Your task to perform on an android device: remove spam from my inbox in the gmail app Image 0: 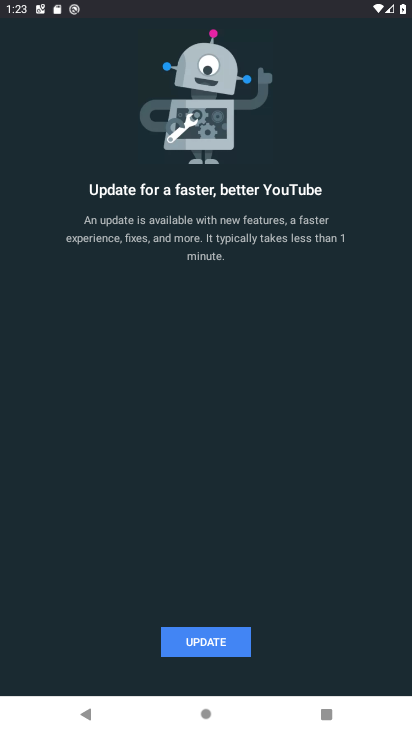
Step 0: press home button
Your task to perform on an android device: remove spam from my inbox in the gmail app Image 1: 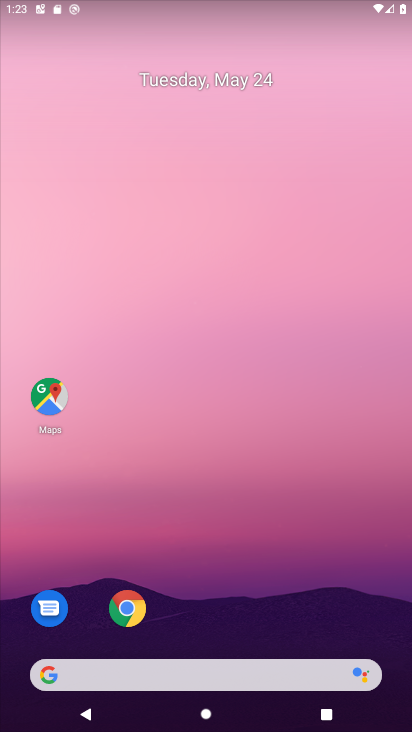
Step 1: drag from (268, 582) to (154, 21)
Your task to perform on an android device: remove spam from my inbox in the gmail app Image 2: 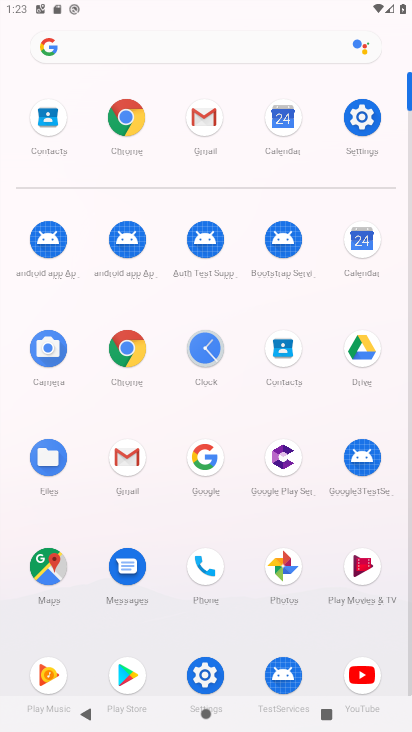
Step 2: click (194, 127)
Your task to perform on an android device: remove spam from my inbox in the gmail app Image 3: 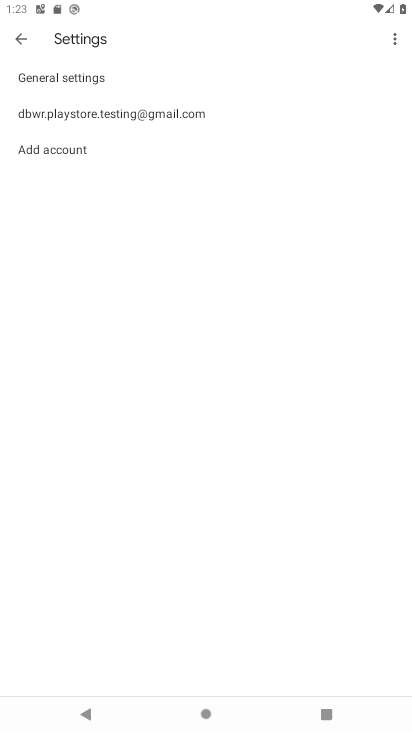
Step 3: click (19, 36)
Your task to perform on an android device: remove spam from my inbox in the gmail app Image 4: 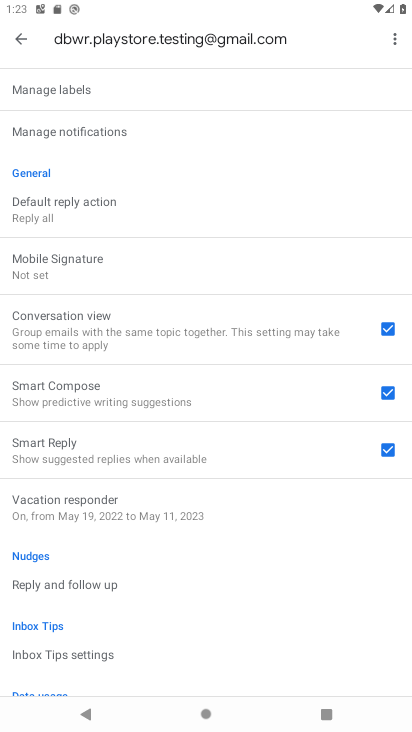
Step 4: click (25, 46)
Your task to perform on an android device: remove spam from my inbox in the gmail app Image 5: 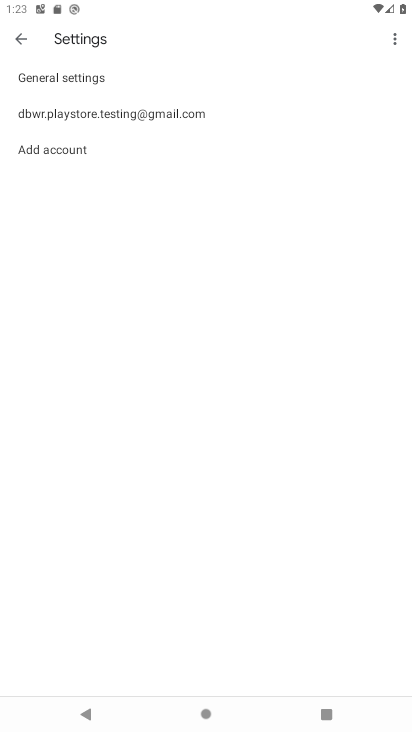
Step 5: click (19, 37)
Your task to perform on an android device: remove spam from my inbox in the gmail app Image 6: 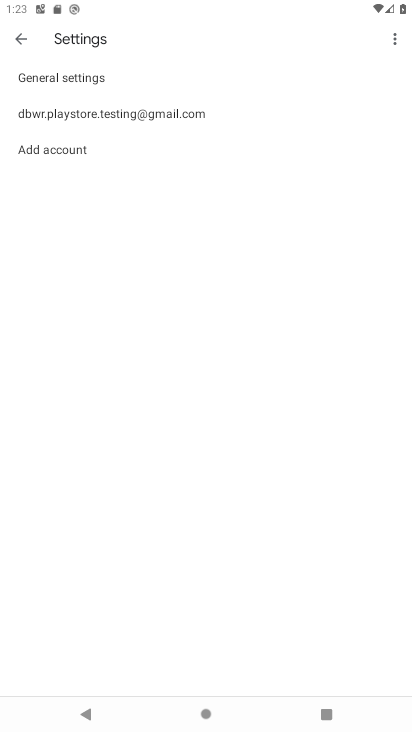
Step 6: click (22, 40)
Your task to perform on an android device: remove spam from my inbox in the gmail app Image 7: 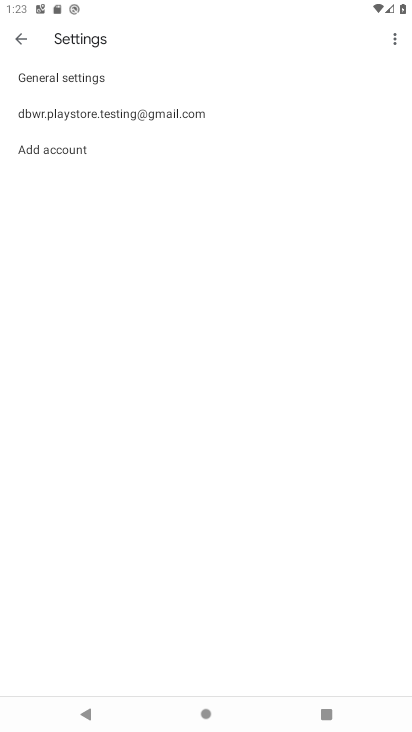
Step 7: click (22, 40)
Your task to perform on an android device: remove spam from my inbox in the gmail app Image 8: 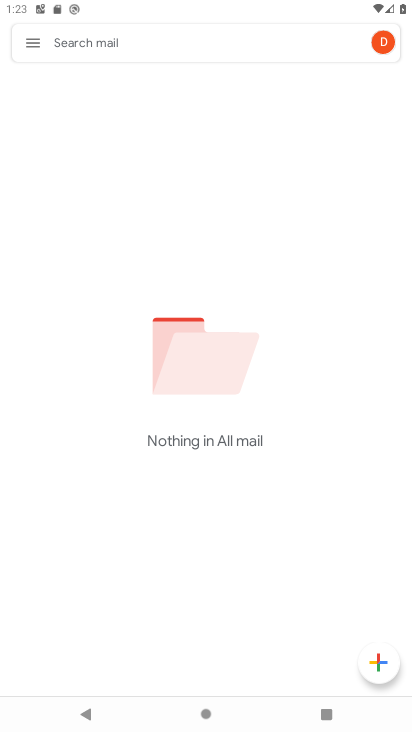
Step 8: click (33, 40)
Your task to perform on an android device: remove spam from my inbox in the gmail app Image 9: 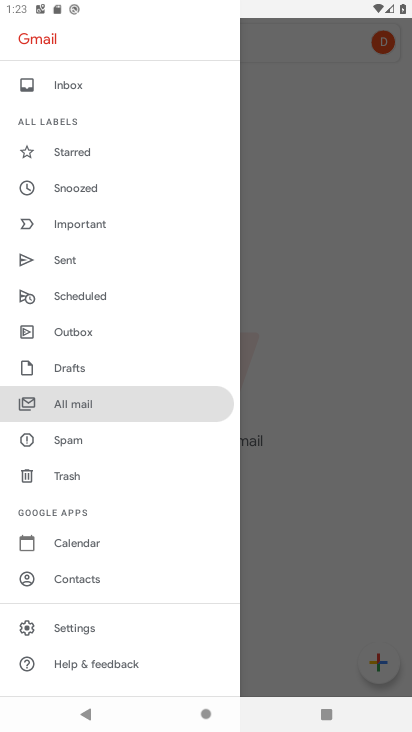
Step 9: click (120, 432)
Your task to perform on an android device: remove spam from my inbox in the gmail app Image 10: 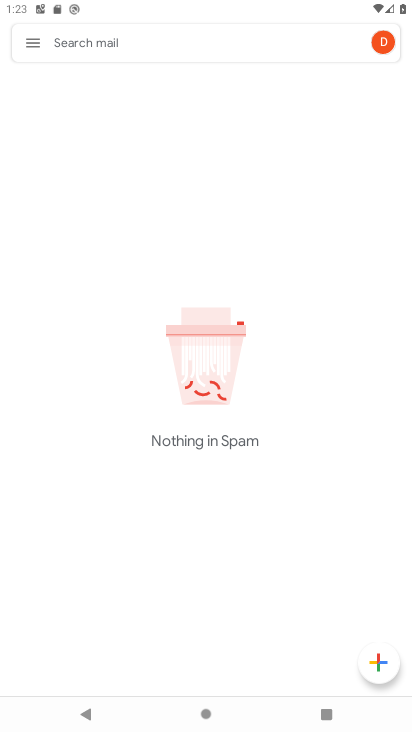
Step 10: task complete